Your task to perform on an android device: open device folders in google photos Image 0: 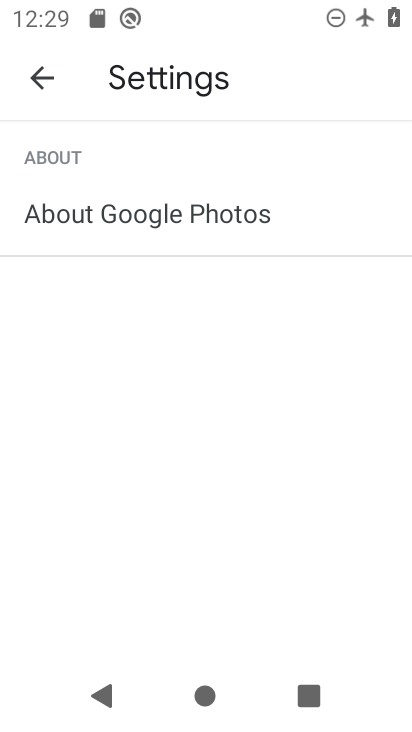
Step 0: press home button
Your task to perform on an android device: open device folders in google photos Image 1: 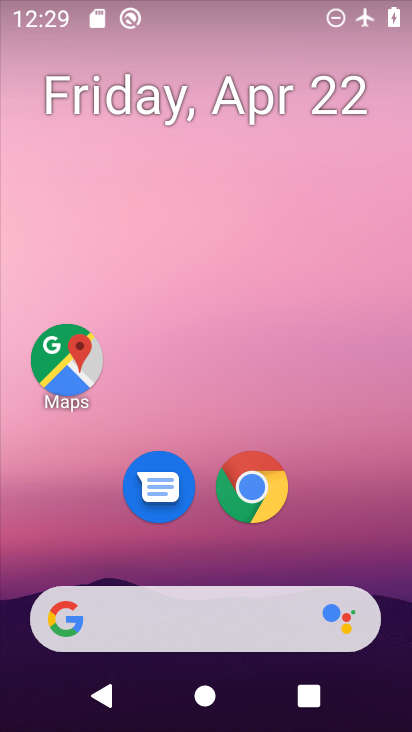
Step 1: drag from (272, 599) to (237, 75)
Your task to perform on an android device: open device folders in google photos Image 2: 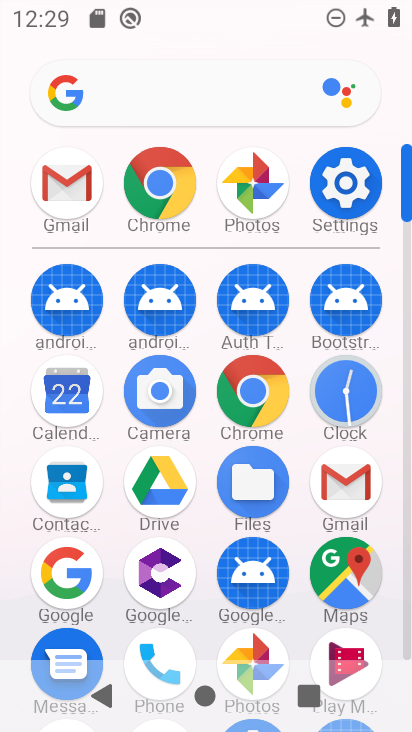
Step 2: click (259, 640)
Your task to perform on an android device: open device folders in google photos Image 3: 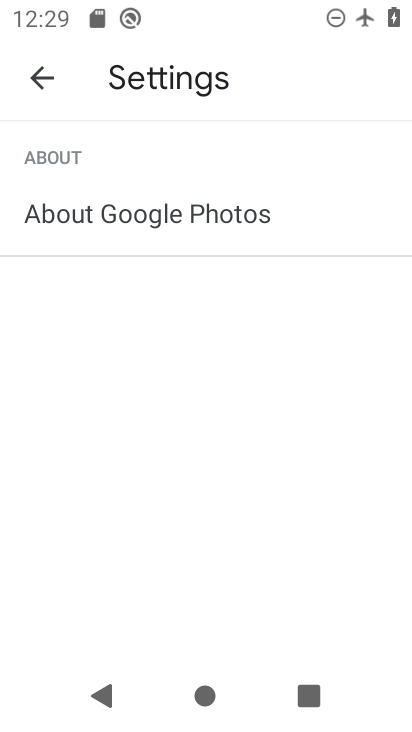
Step 3: click (54, 85)
Your task to perform on an android device: open device folders in google photos Image 4: 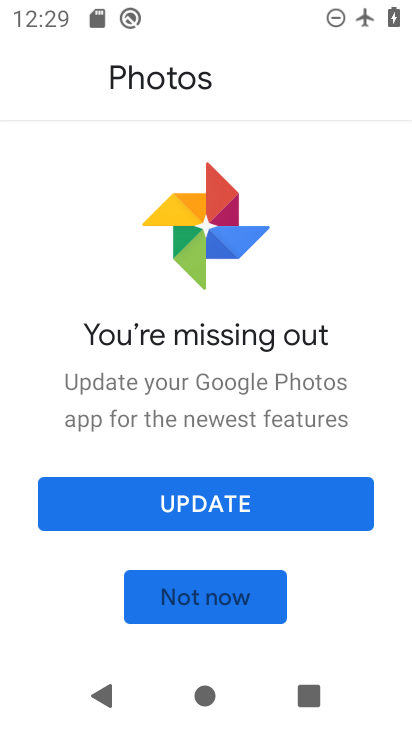
Step 4: click (186, 602)
Your task to perform on an android device: open device folders in google photos Image 5: 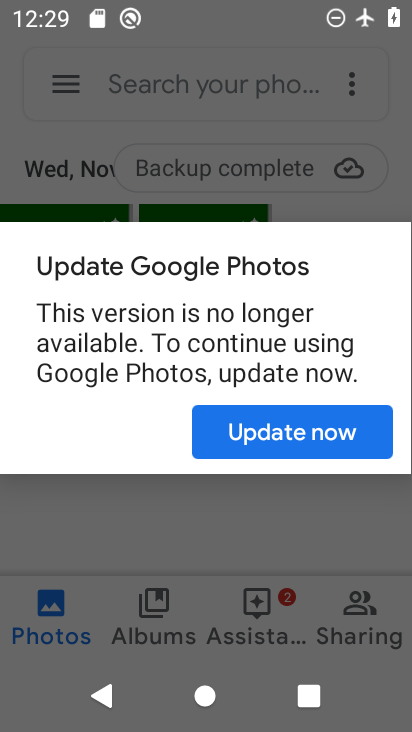
Step 5: click (290, 442)
Your task to perform on an android device: open device folders in google photos Image 6: 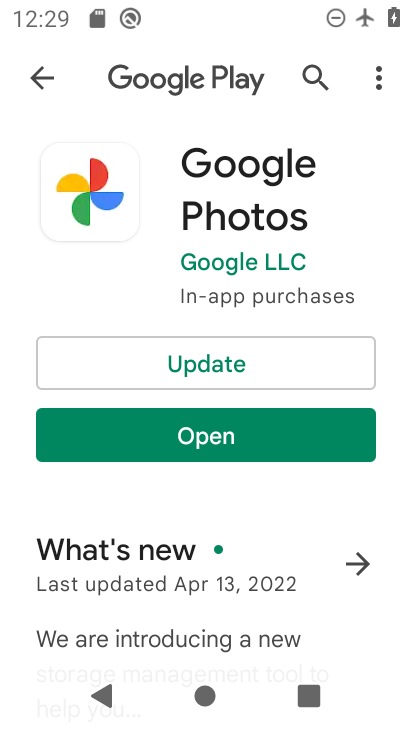
Step 6: task complete